Your task to perform on an android device: toggle show notifications on the lock screen Image 0: 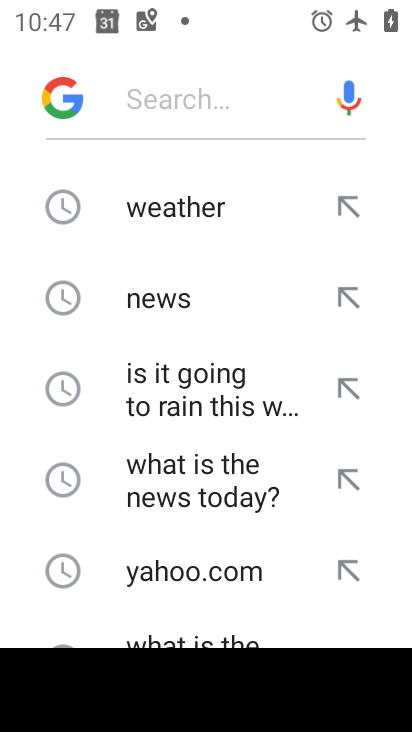
Step 0: press home button
Your task to perform on an android device: toggle show notifications on the lock screen Image 1: 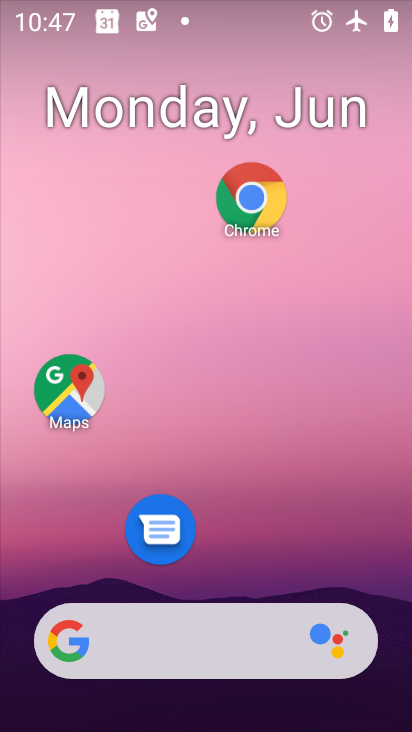
Step 1: drag from (226, 533) to (189, 139)
Your task to perform on an android device: toggle show notifications on the lock screen Image 2: 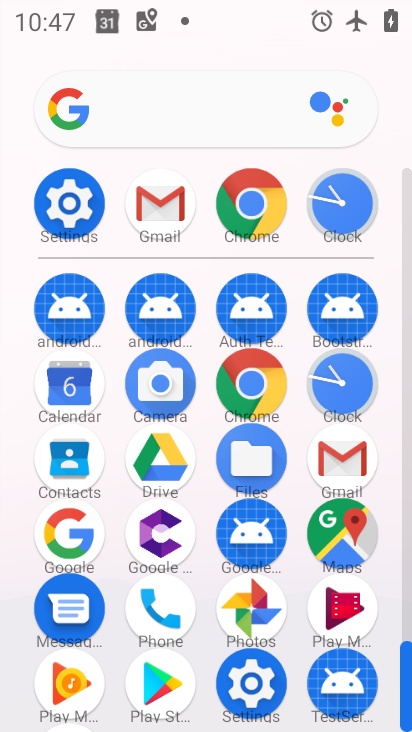
Step 2: click (86, 210)
Your task to perform on an android device: toggle show notifications on the lock screen Image 3: 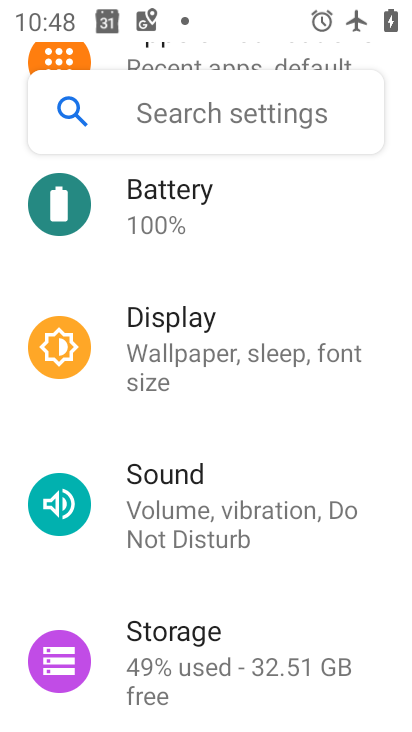
Step 3: drag from (282, 286) to (279, 515)
Your task to perform on an android device: toggle show notifications on the lock screen Image 4: 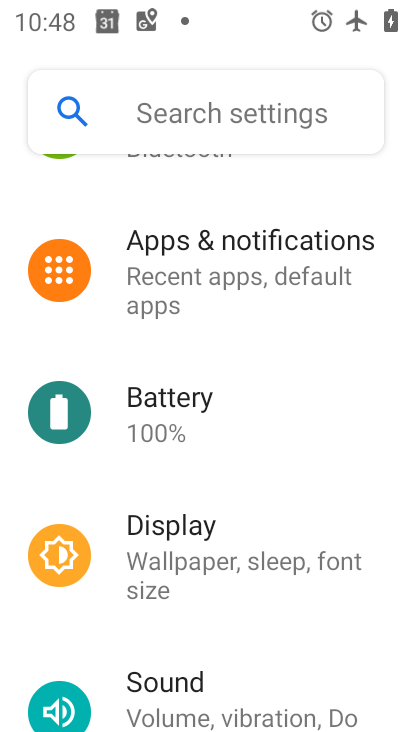
Step 4: drag from (239, 391) to (230, 572)
Your task to perform on an android device: toggle show notifications on the lock screen Image 5: 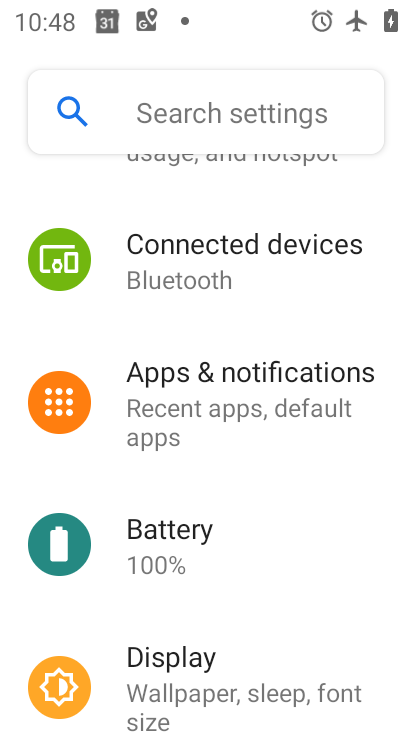
Step 5: drag from (235, 310) to (259, 549)
Your task to perform on an android device: toggle show notifications on the lock screen Image 6: 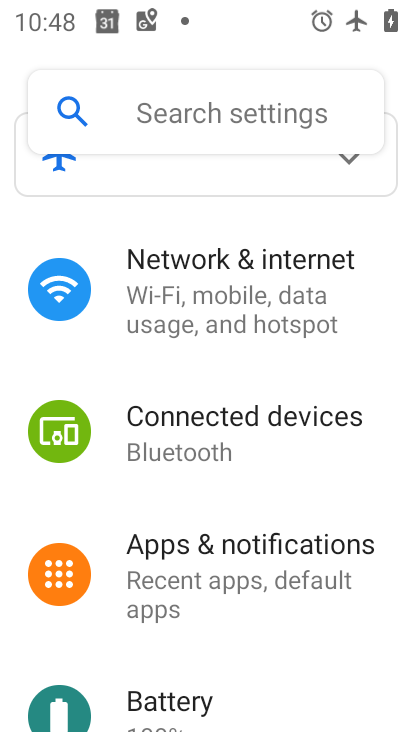
Step 6: drag from (244, 620) to (273, 375)
Your task to perform on an android device: toggle show notifications on the lock screen Image 7: 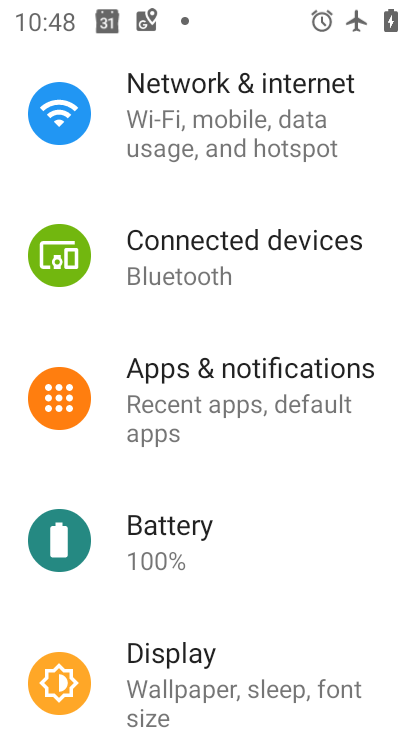
Step 7: click (232, 415)
Your task to perform on an android device: toggle show notifications on the lock screen Image 8: 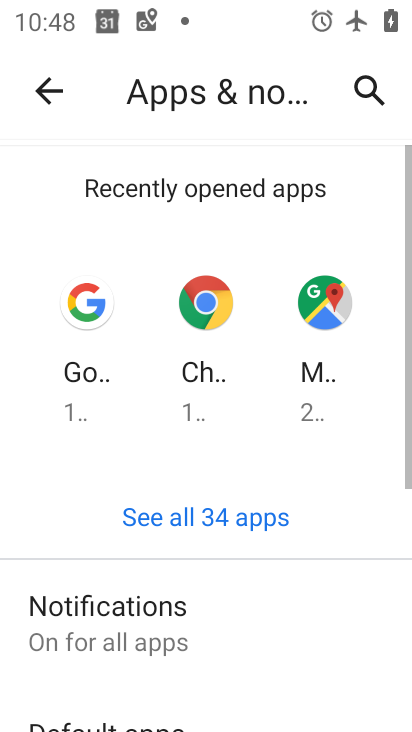
Step 8: drag from (245, 617) to (271, 263)
Your task to perform on an android device: toggle show notifications on the lock screen Image 9: 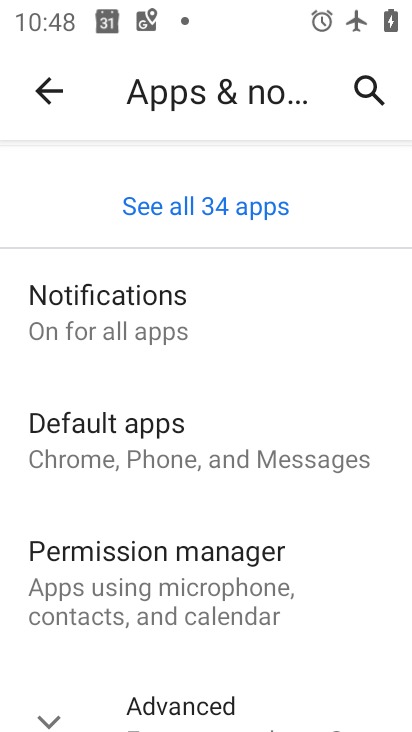
Step 9: click (182, 338)
Your task to perform on an android device: toggle show notifications on the lock screen Image 10: 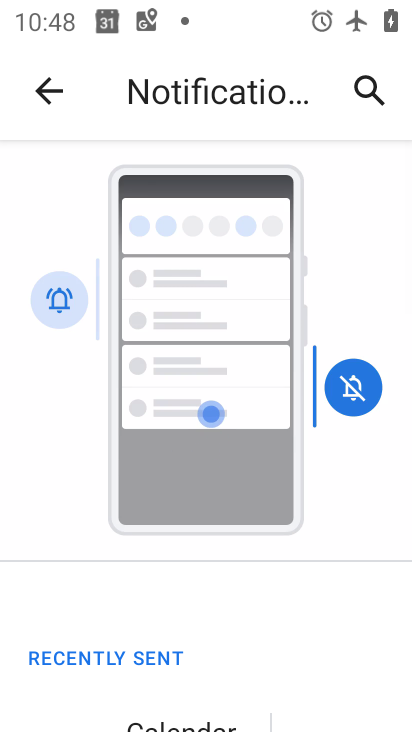
Step 10: drag from (191, 710) to (194, 405)
Your task to perform on an android device: toggle show notifications on the lock screen Image 11: 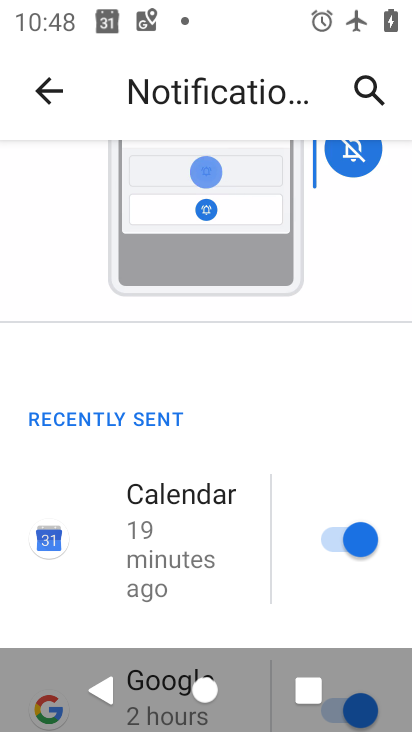
Step 11: drag from (191, 628) to (214, 399)
Your task to perform on an android device: toggle show notifications on the lock screen Image 12: 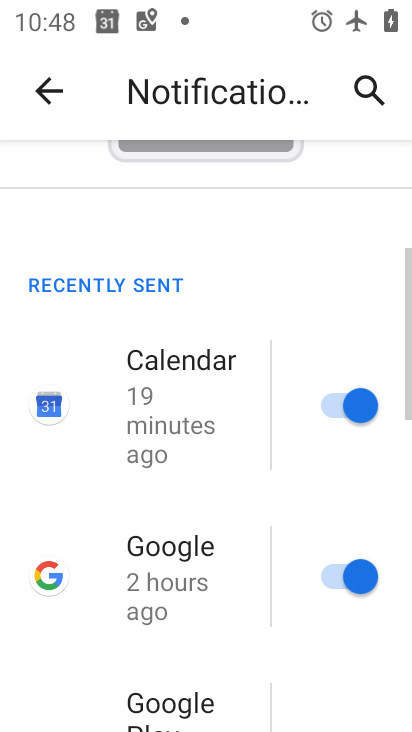
Step 12: drag from (215, 597) to (240, 337)
Your task to perform on an android device: toggle show notifications on the lock screen Image 13: 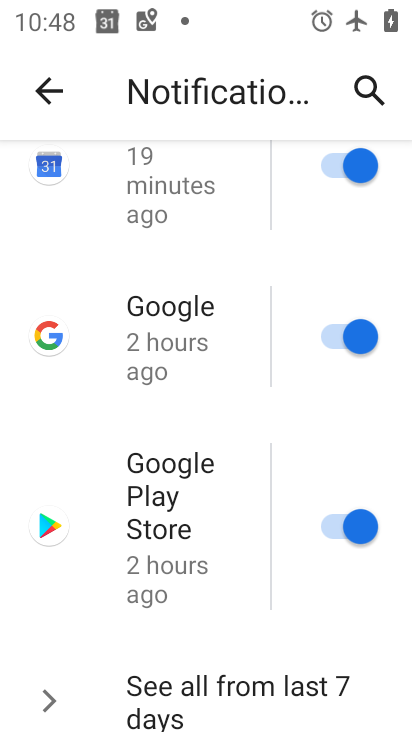
Step 13: drag from (240, 713) to (253, 463)
Your task to perform on an android device: toggle show notifications on the lock screen Image 14: 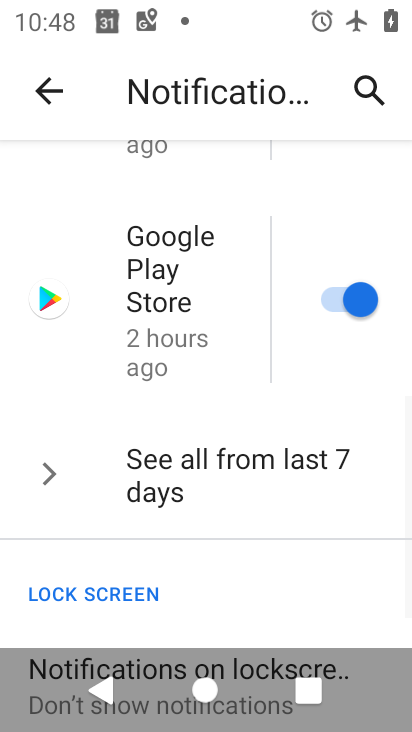
Step 14: drag from (188, 638) to (203, 470)
Your task to perform on an android device: toggle show notifications on the lock screen Image 15: 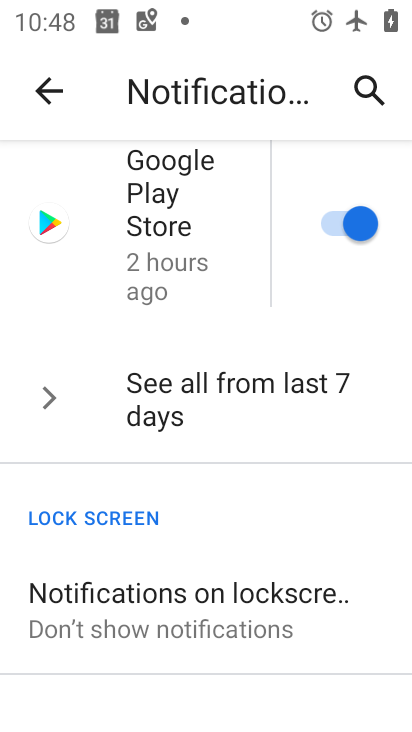
Step 15: click (211, 596)
Your task to perform on an android device: toggle show notifications on the lock screen Image 16: 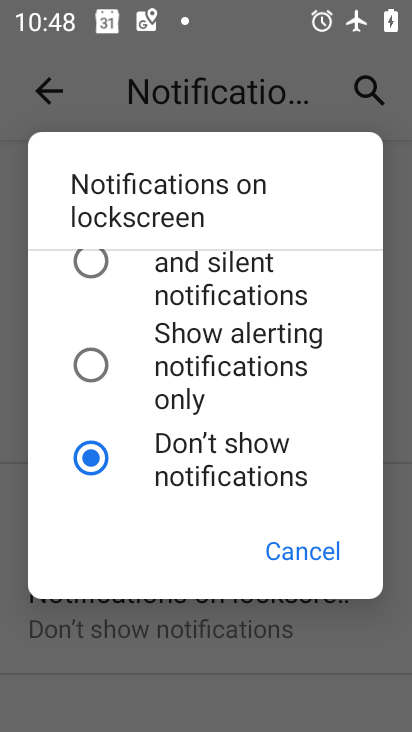
Step 16: click (108, 257)
Your task to perform on an android device: toggle show notifications on the lock screen Image 17: 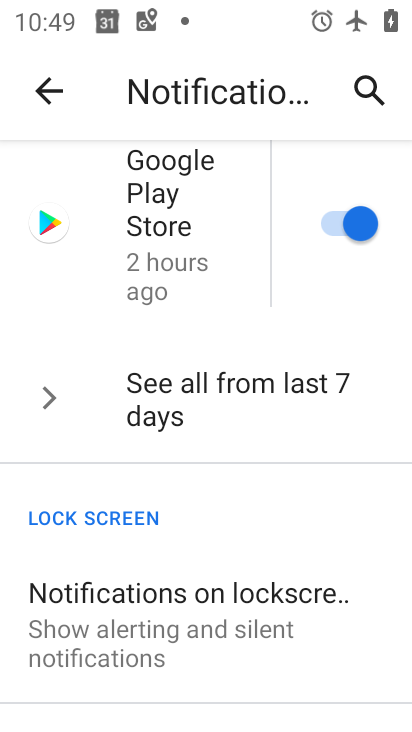
Step 17: task complete